Your task to perform on an android device: What's the weather going to be tomorrow? Image 0: 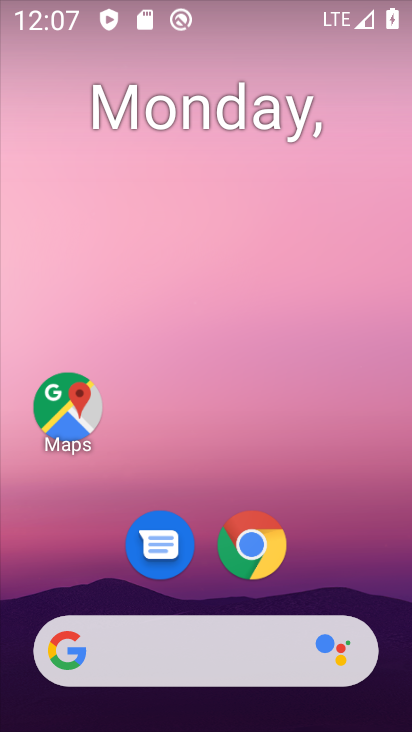
Step 0: click (255, 644)
Your task to perform on an android device: What's the weather going to be tomorrow? Image 1: 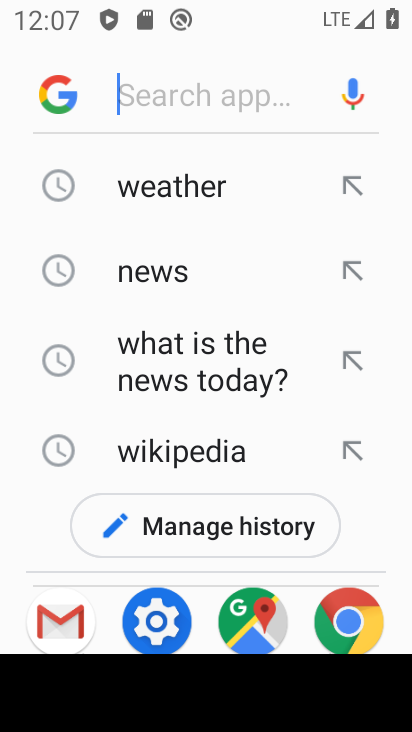
Step 1: click (219, 193)
Your task to perform on an android device: What's the weather going to be tomorrow? Image 2: 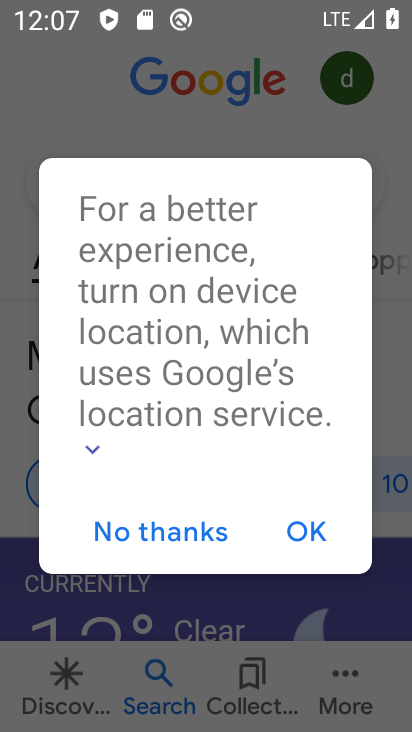
Step 2: press home button
Your task to perform on an android device: What's the weather going to be tomorrow? Image 3: 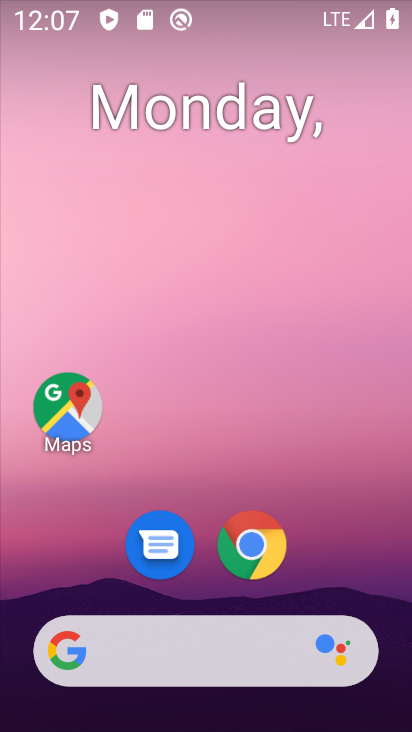
Step 3: click (214, 627)
Your task to perform on an android device: What's the weather going to be tomorrow? Image 4: 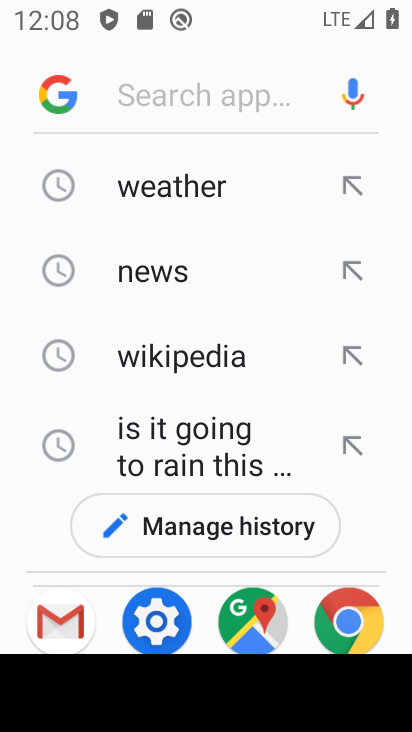
Step 4: click (142, 169)
Your task to perform on an android device: What's the weather going to be tomorrow? Image 5: 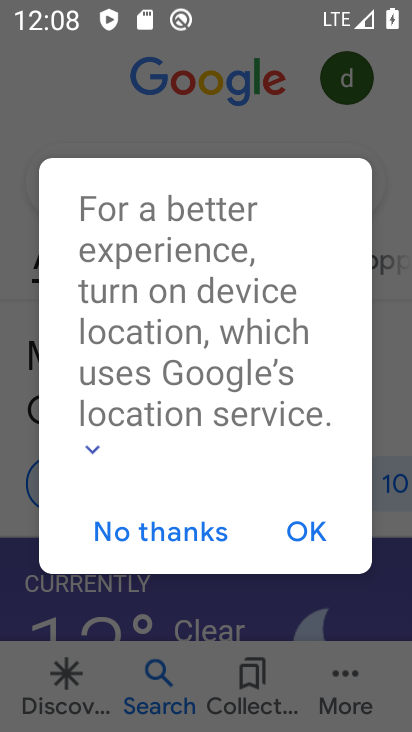
Step 5: click (174, 532)
Your task to perform on an android device: What's the weather going to be tomorrow? Image 6: 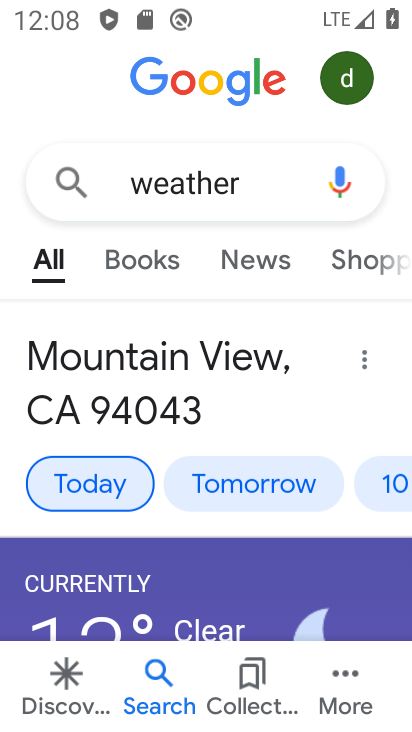
Step 6: click (283, 479)
Your task to perform on an android device: What's the weather going to be tomorrow? Image 7: 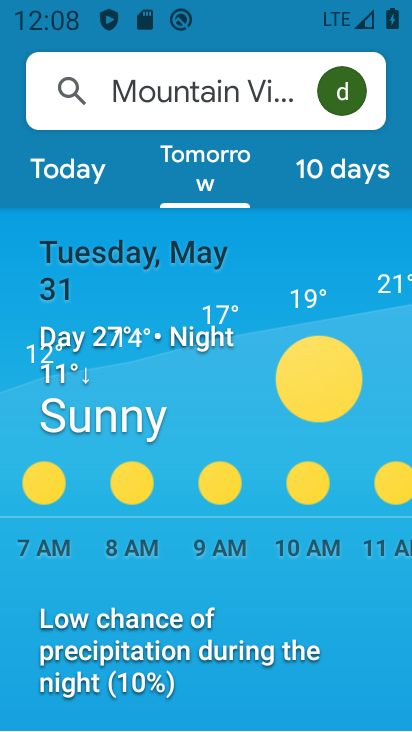
Step 7: task complete